Your task to perform on an android device: Play the last video I watched on Youtube Image 0: 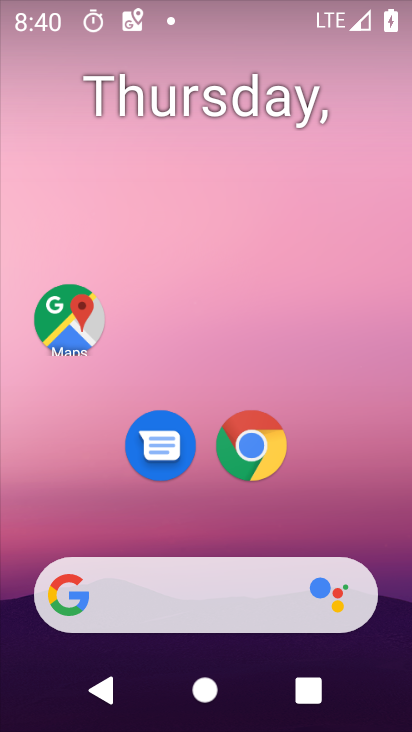
Step 0: click (197, 551)
Your task to perform on an android device: Play the last video I watched on Youtube Image 1: 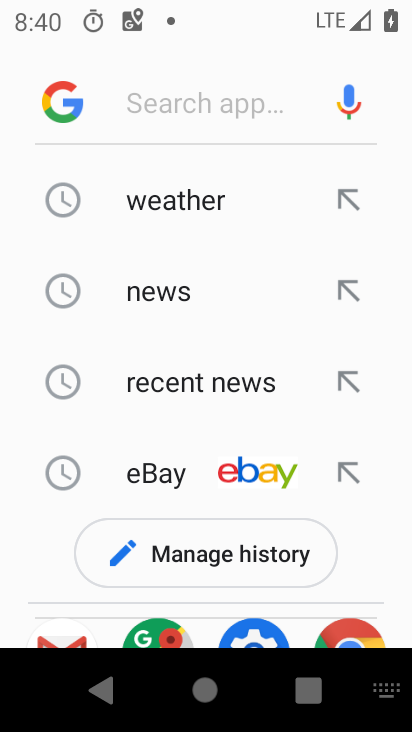
Step 1: press home button
Your task to perform on an android device: Play the last video I watched on Youtube Image 2: 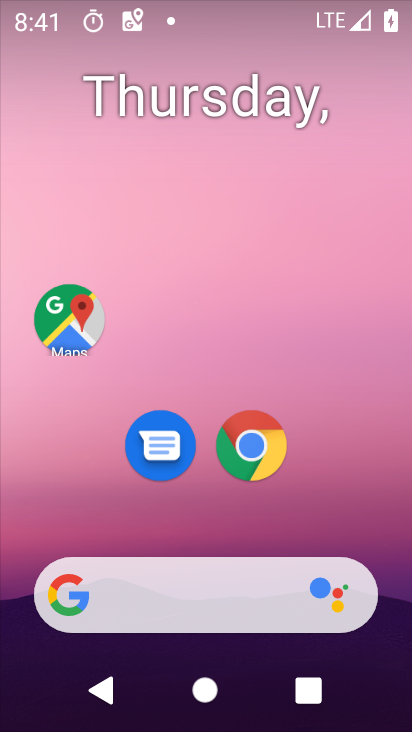
Step 2: drag from (212, 503) to (248, 69)
Your task to perform on an android device: Play the last video I watched on Youtube Image 3: 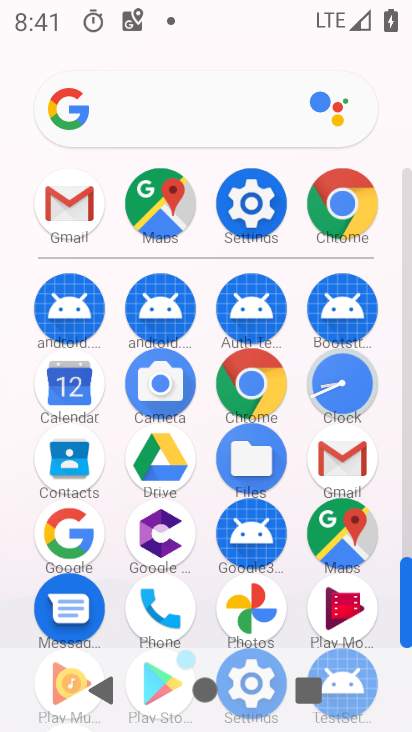
Step 3: drag from (198, 638) to (218, 261)
Your task to perform on an android device: Play the last video I watched on Youtube Image 4: 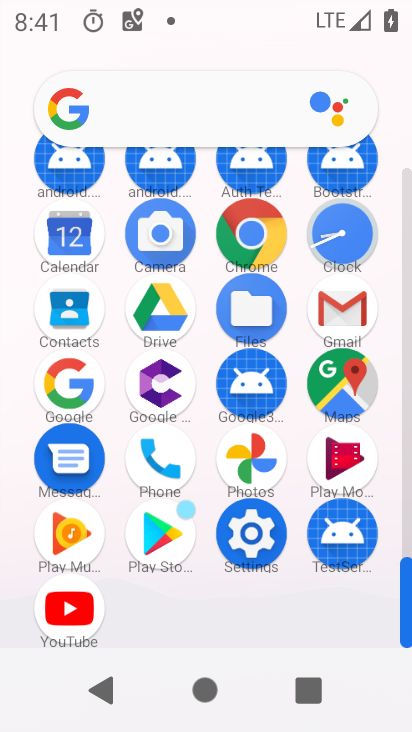
Step 4: click (67, 602)
Your task to perform on an android device: Play the last video I watched on Youtube Image 5: 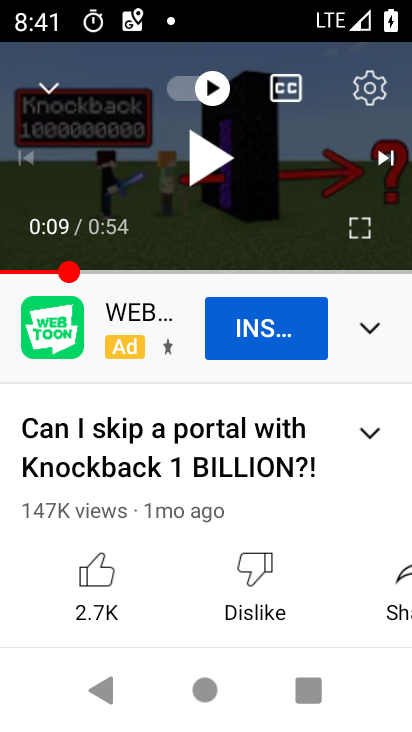
Step 5: drag from (263, 135) to (302, 585)
Your task to perform on an android device: Play the last video I watched on Youtube Image 6: 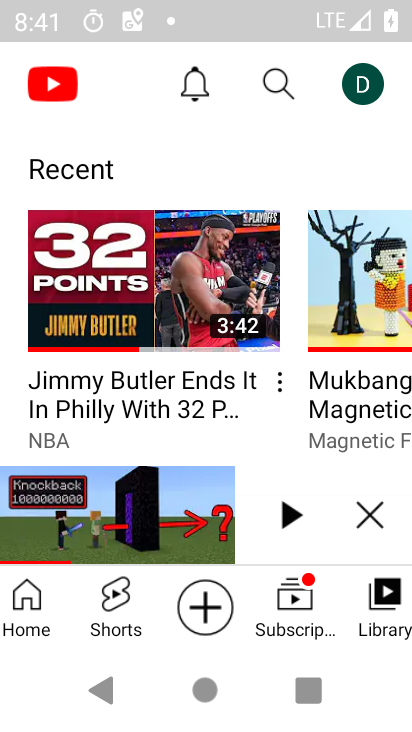
Step 6: click (366, 522)
Your task to perform on an android device: Play the last video I watched on Youtube Image 7: 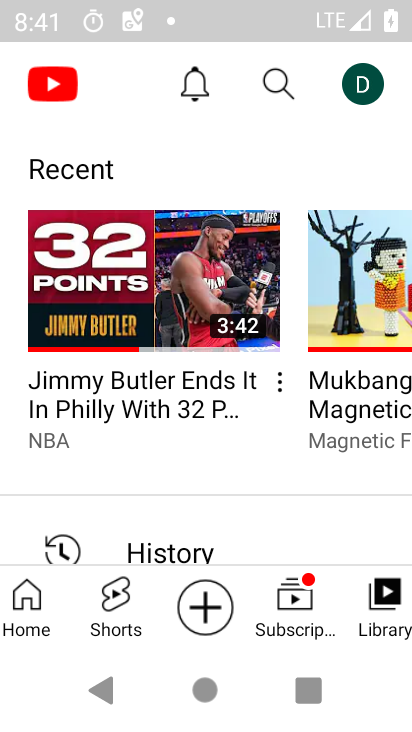
Step 7: click (377, 589)
Your task to perform on an android device: Play the last video I watched on Youtube Image 8: 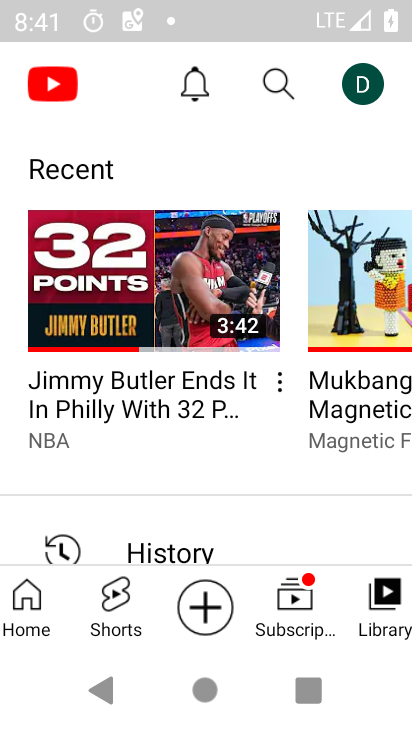
Step 8: drag from (209, 507) to (285, 181)
Your task to perform on an android device: Play the last video I watched on Youtube Image 9: 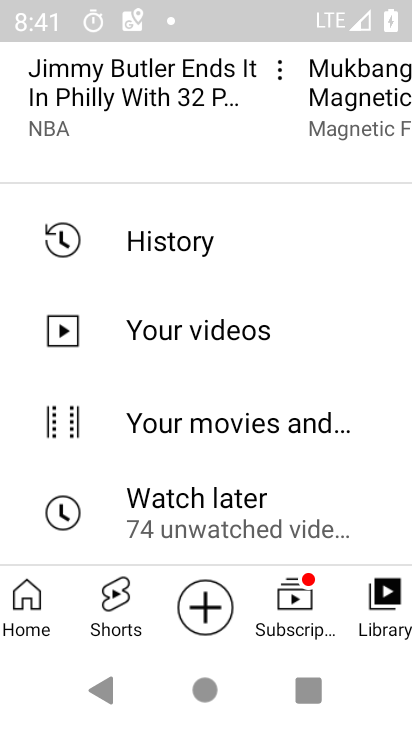
Step 9: drag from (237, 213) to (217, 594)
Your task to perform on an android device: Play the last video I watched on Youtube Image 10: 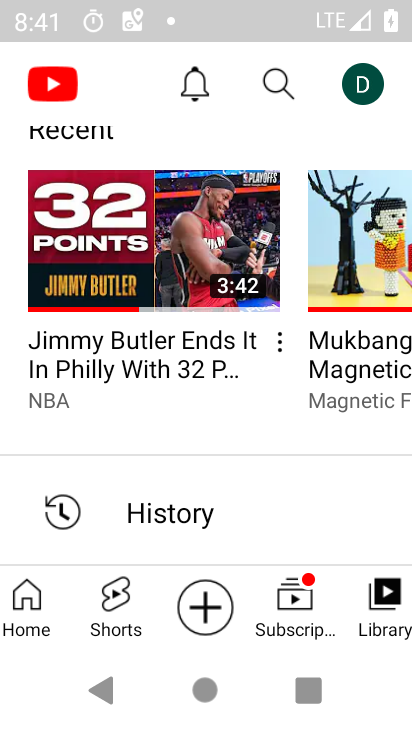
Step 10: click (198, 220)
Your task to perform on an android device: Play the last video I watched on Youtube Image 11: 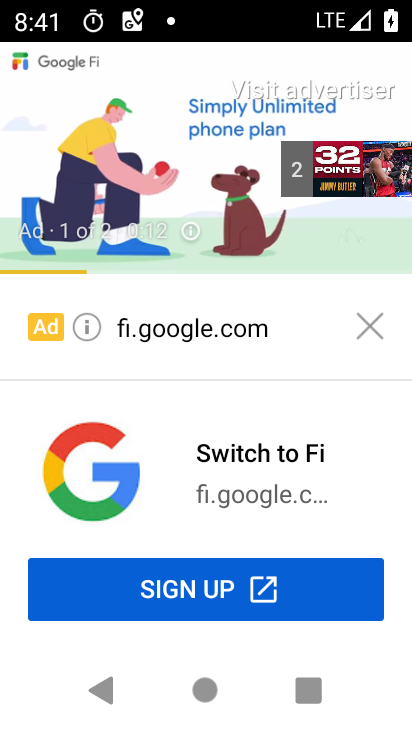
Step 11: click (380, 332)
Your task to perform on an android device: Play the last video I watched on Youtube Image 12: 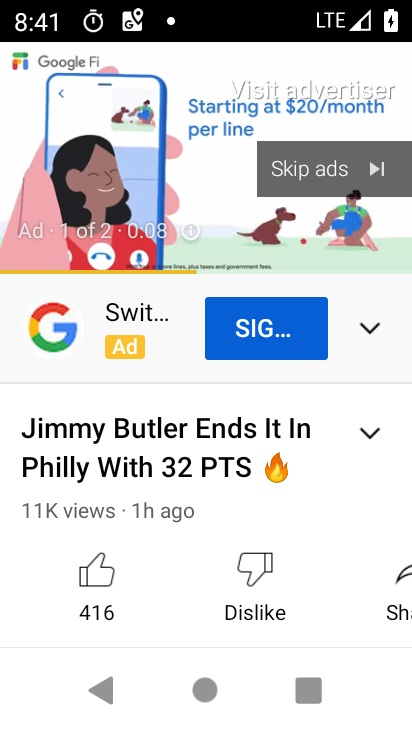
Step 12: click (376, 182)
Your task to perform on an android device: Play the last video I watched on Youtube Image 13: 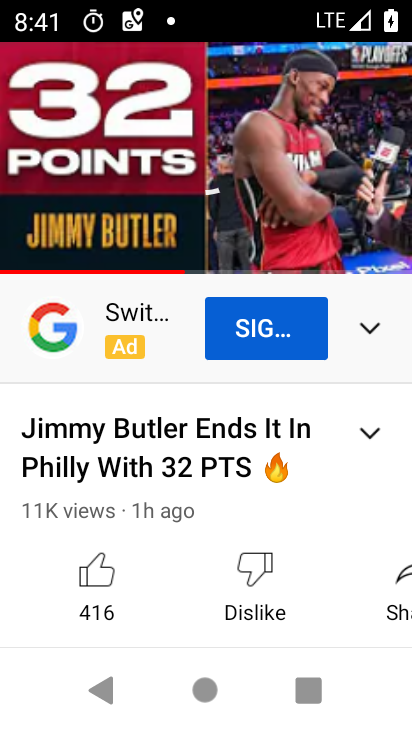
Step 13: task complete